Your task to perform on an android device: Where can I buy a nice beach bag? Image 0: 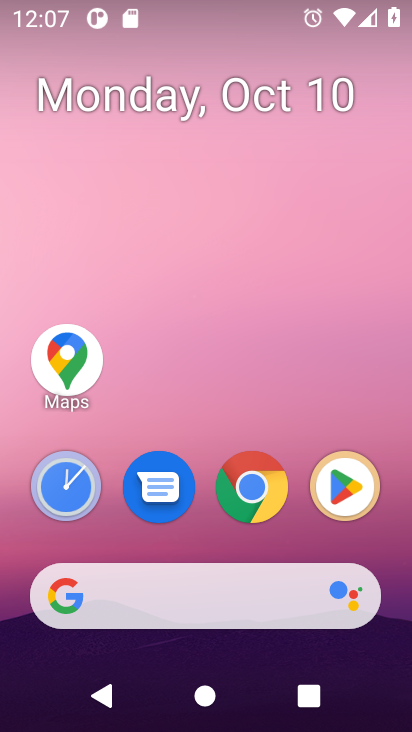
Step 0: drag from (216, 558) to (219, 17)
Your task to perform on an android device: Where can I buy a nice beach bag? Image 1: 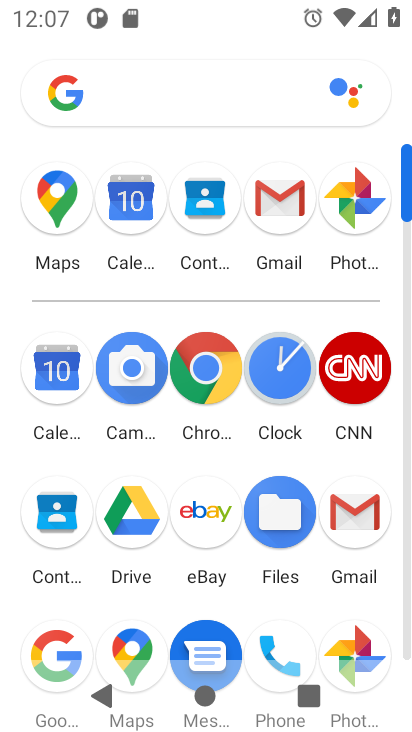
Step 1: click (203, 365)
Your task to perform on an android device: Where can I buy a nice beach bag? Image 2: 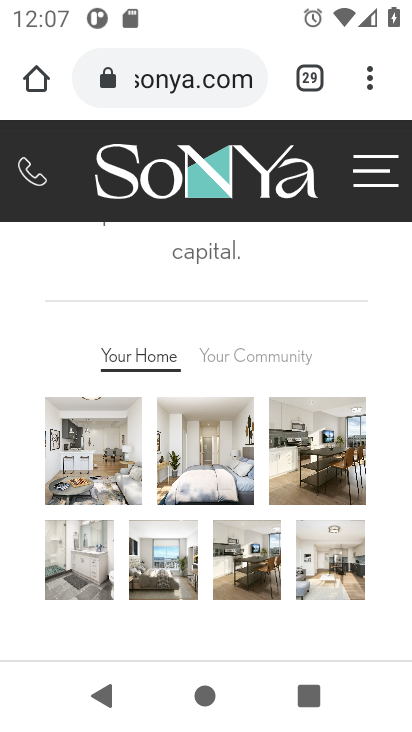
Step 2: drag from (370, 84) to (96, 160)
Your task to perform on an android device: Where can I buy a nice beach bag? Image 3: 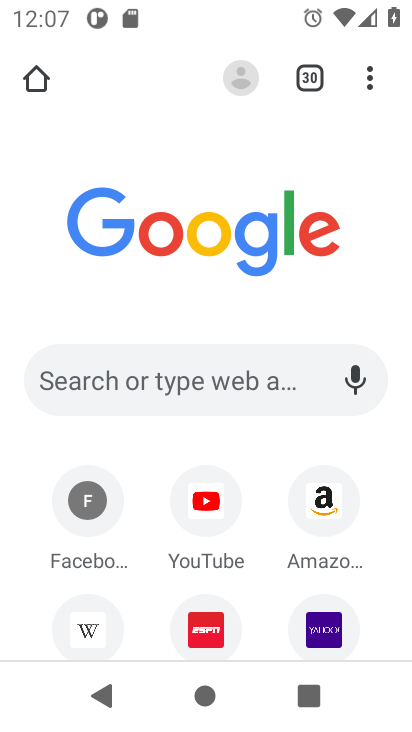
Step 3: click (185, 384)
Your task to perform on an android device: Where can I buy a nice beach bag? Image 4: 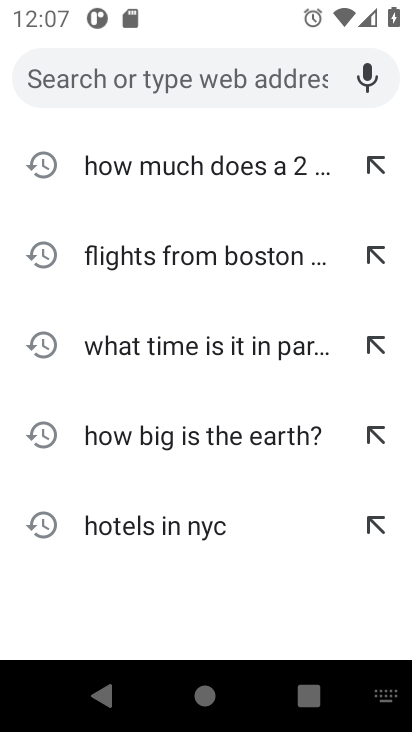
Step 4: type "Where can I buy a nice beach bag?"
Your task to perform on an android device: Where can I buy a nice beach bag? Image 5: 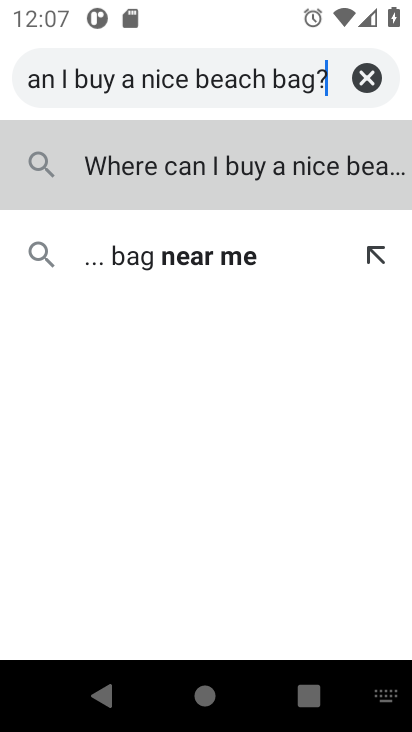
Step 5: type ""
Your task to perform on an android device: Where can I buy a nice beach bag? Image 6: 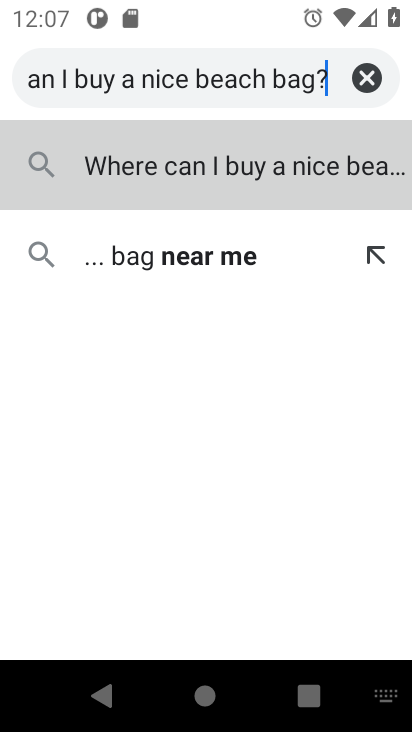
Step 6: click (273, 178)
Your task to perform on an android device: Where can I buy a nice beach bag? Image 7: 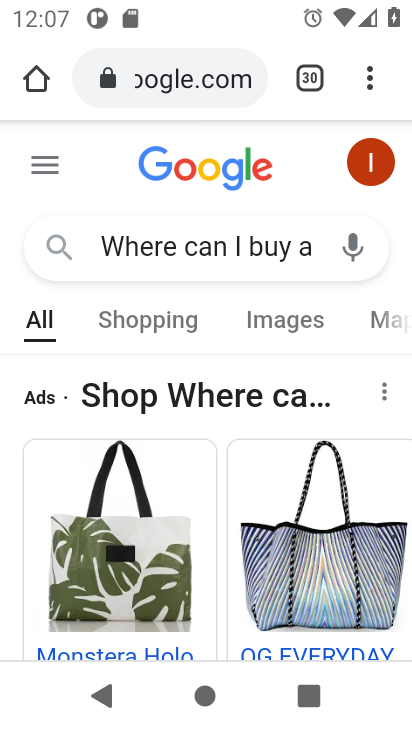
Step 7: task complete